Your task to perform on an android device: turn on javascript in the chrome app Image 0: 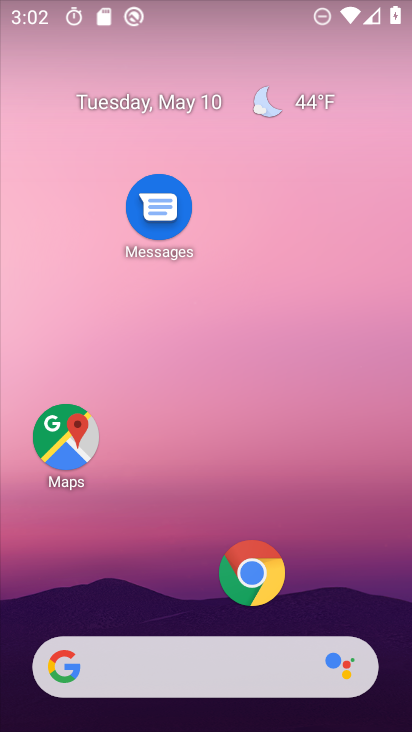
Step 0: click (257, 553)
Your task to perform on an android device: turn on javascript in the chrome app Image 1: 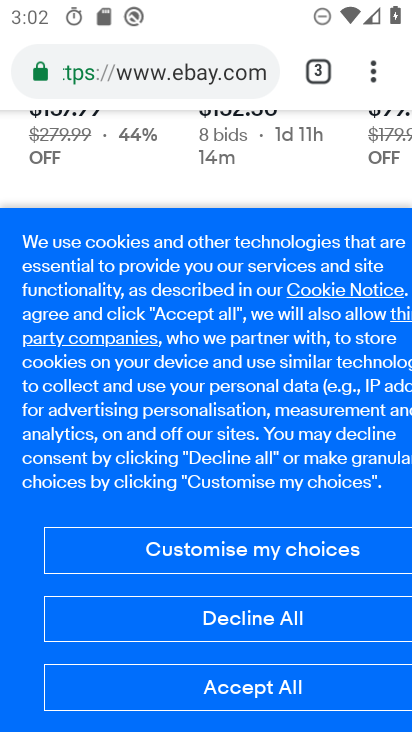
Step 1: click (365, 69)
Your task to perform on an android device: turn on javascript in the chrome app Image 2: 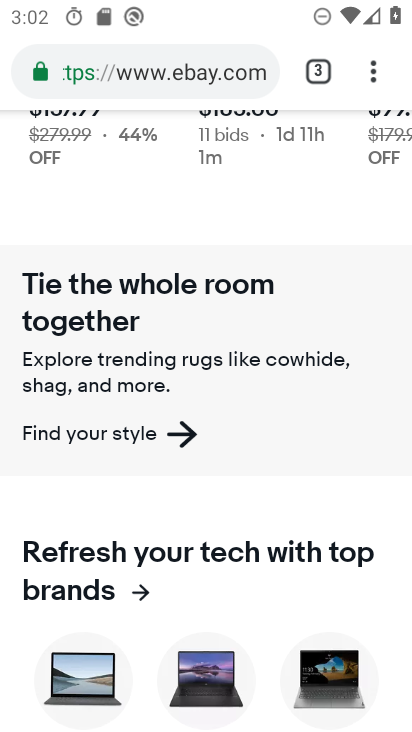
Step 2: drag from (366, 69) to (132, 595)
Your task to perform on an android device: turn on javascript in the chrome app Image 3: 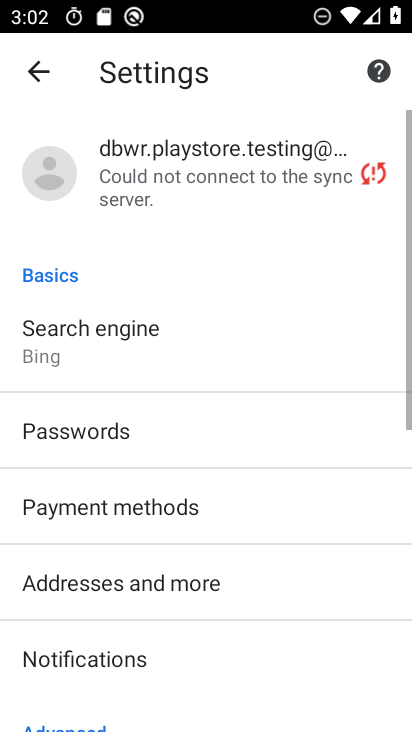
Step 3: drag from (152, 618) to (303, 275)
Your task to perform on an android device: turn on javascript in the chrome app Image 4: 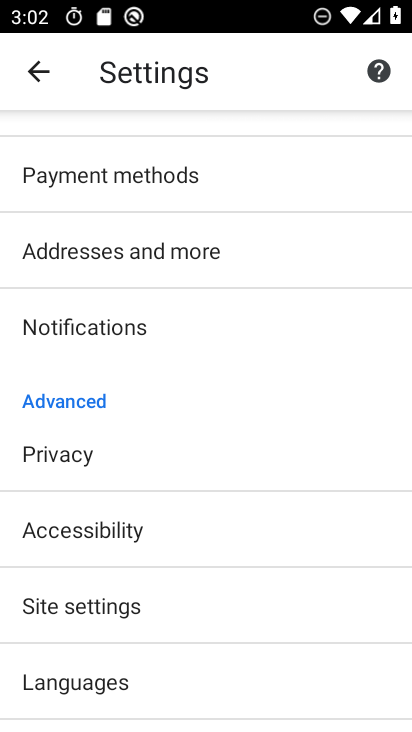
Step 4: drag from (131, 658) to (205, 386)
Your task to perform on an android device: turn on javascript in the chrome app Image 5: 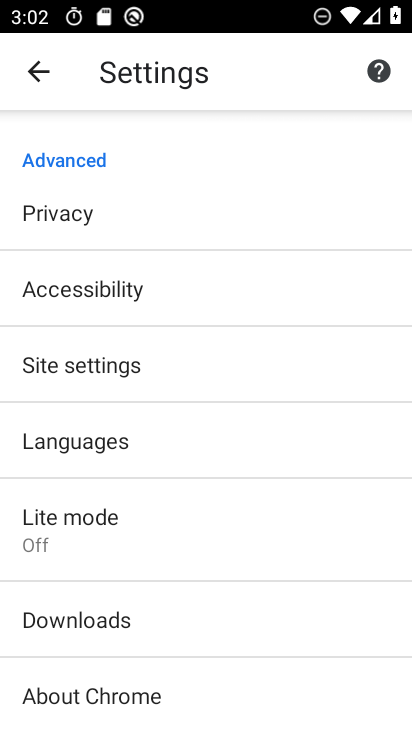
Step 5: click (140, 376)
Your task to perform on an android device: turn on javascript in the chrome app Image 6: 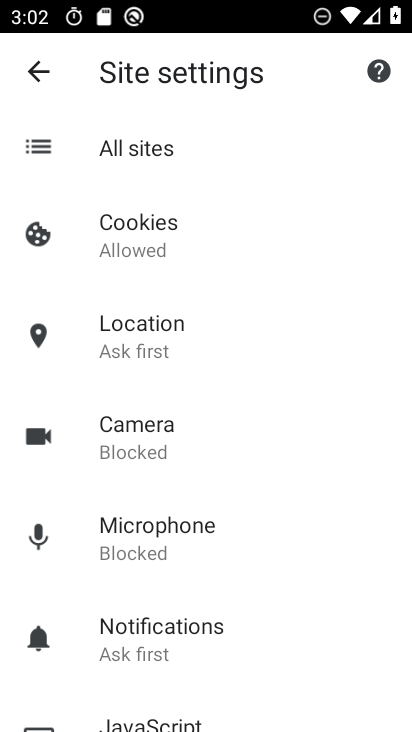
Step 6: drag from (216, 634) to (281, 375)
Your task to perform on an android device: turn on javascript in the chrome app Image 7: 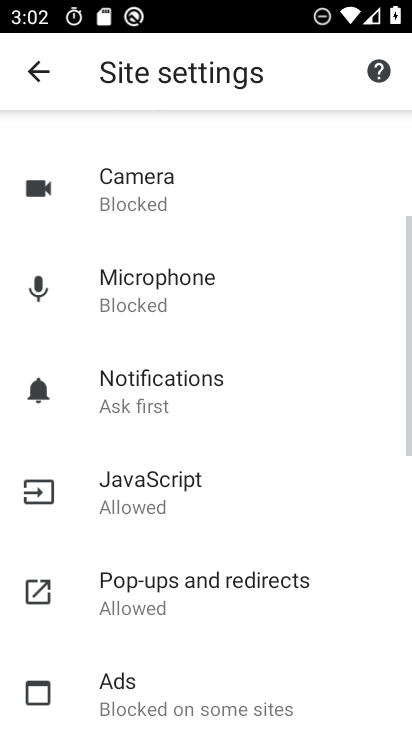
Step 7: click (224, 489)
Your task to perform on an android device: turn on javascript in the chrome app Image 8: 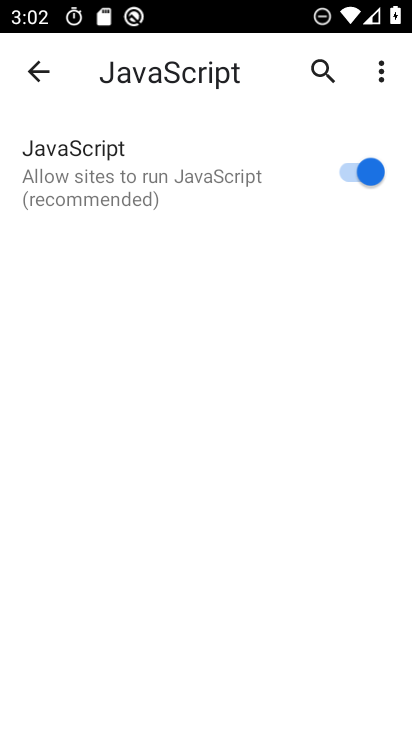
Step 8: task complete